Your task to perform on an android device: Open settings on Google Maps Image 0: 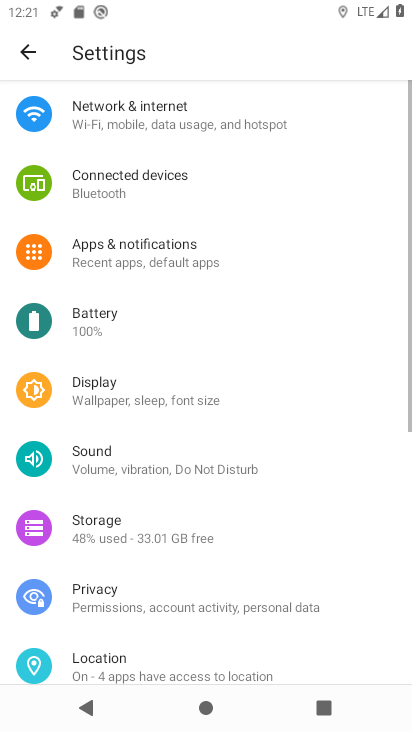
Step 0: press home button
Your task to perform on an android device: Open settings on Google Maps Image 1: 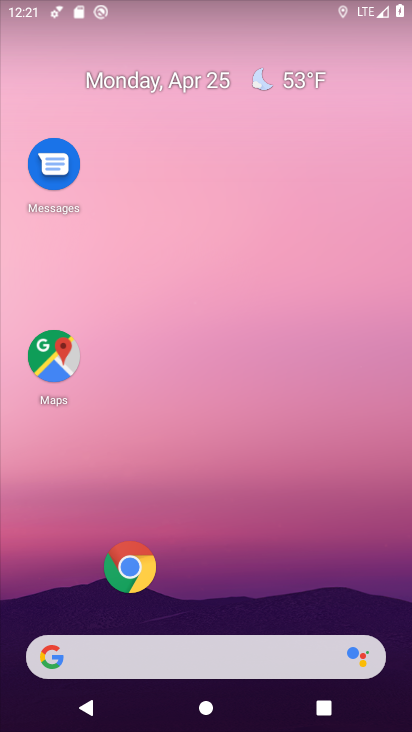
Step 1: click (61, 384)
Your task to perform on an android device: Open settings on Google Maps Image 2: 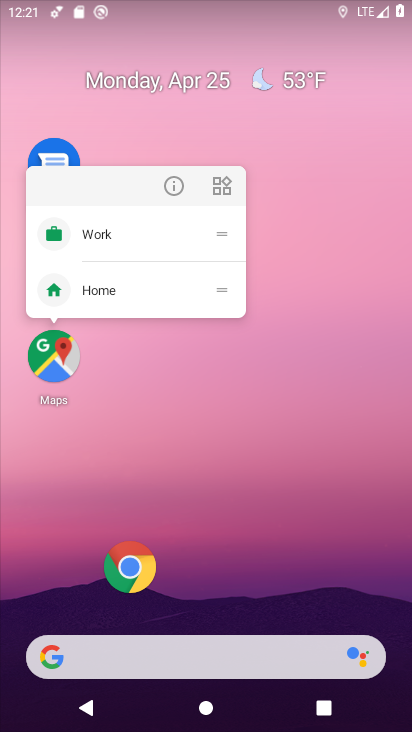
Step 2: click (54, 387)
Your task to perform on an android device: Open settings on Google Maps Image 3: 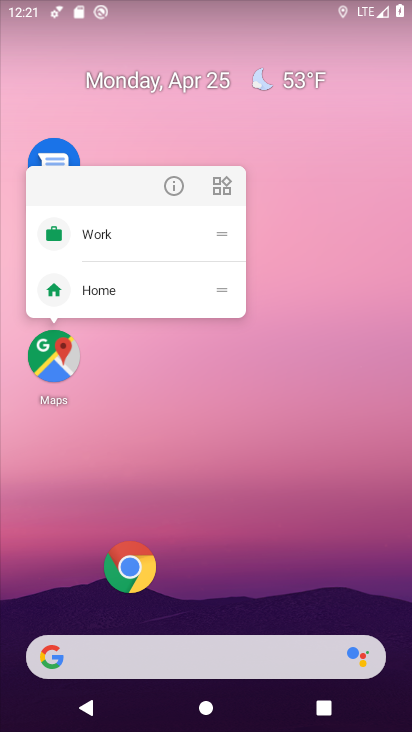
Step 3: click (53, 386)
Your task to perform on an android device: Open settings on Google Maps Image 4: 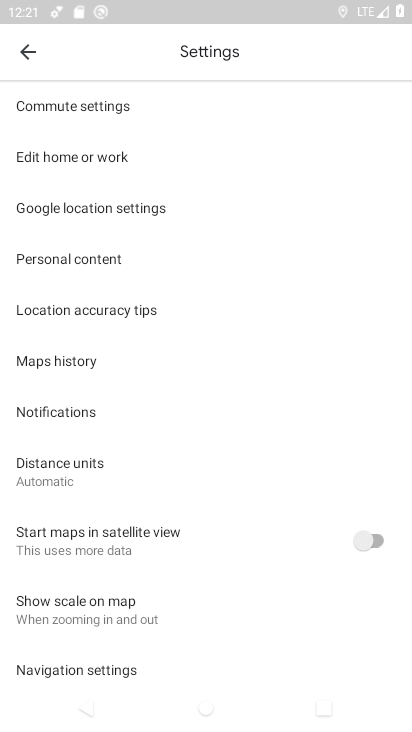
Step 4: task complete